Your task to perform on an android device: turn on airplane mode Image 0: 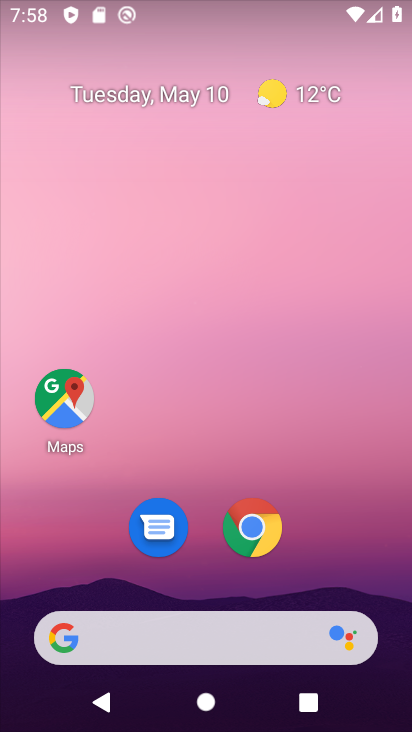
Step 0: drag from (316, 541) to (360, 101)
Your task to perform on an android device: turn on airplane mode Image 1: 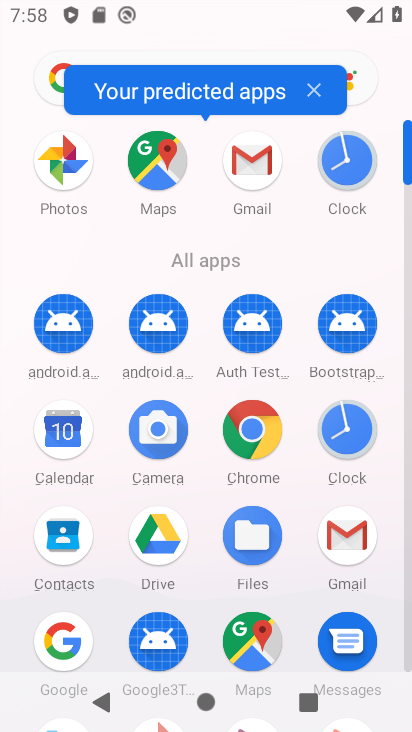
Step 1: drag from (188, 573) to (213, 231)
Your task to perform on an android device: turn on airplane mode Image 2: 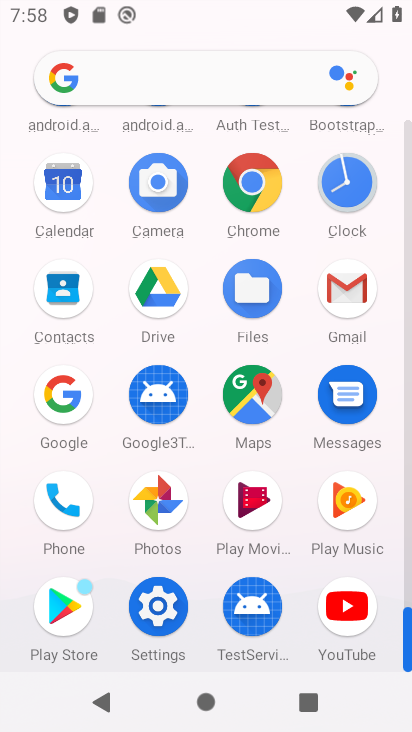
Step 2: click (141, 618)
Your task to perform on an android device: turn on airplane mode Image 3: 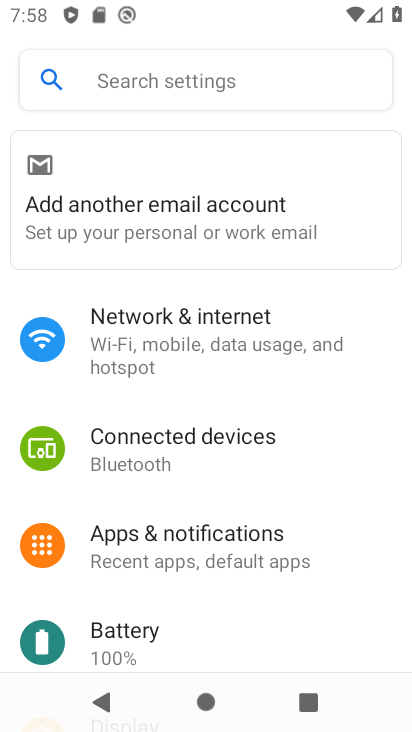
Step 3: drag from (276, 580) to (332, 228)
Your task to perform on an android device: turn on airplane mode Image 4: 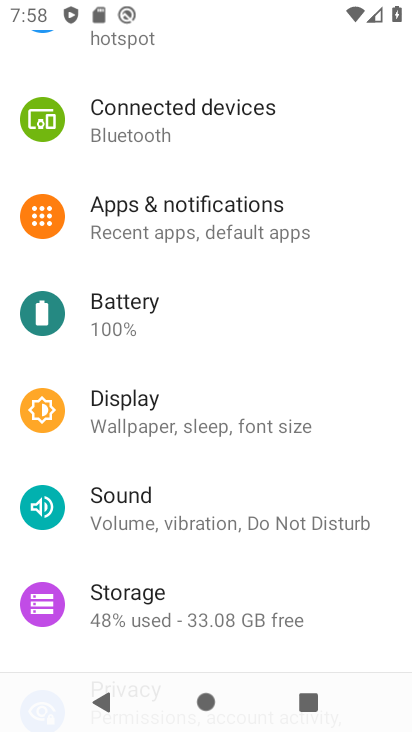
Step 4: drag from (279, 593) to (240, 690)
Your task to perform on an android device: turn on airplane mode Image 5: 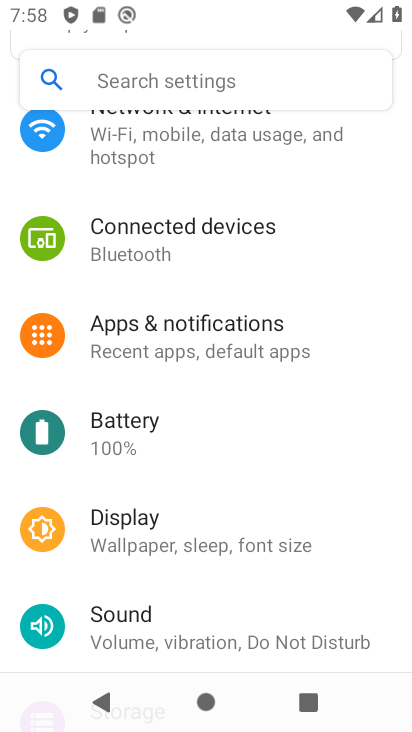
Step 5: click (146, 158)
Your task to perform on an android device: turn on airplane mode Image 6: 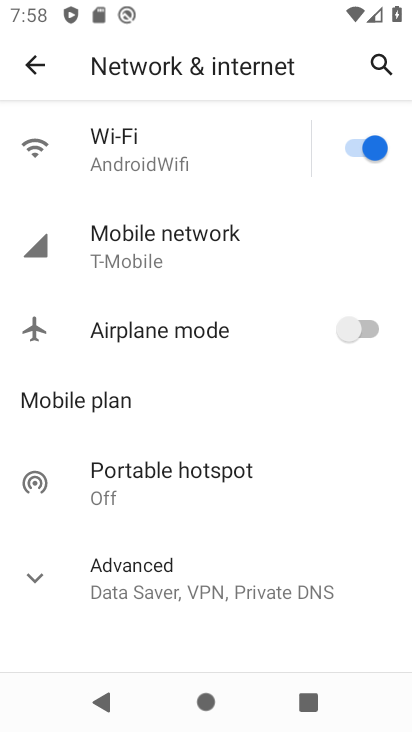
Step 6: click (351, 327)
Your task to perform on an android device: turn on airplane mode Image 7: 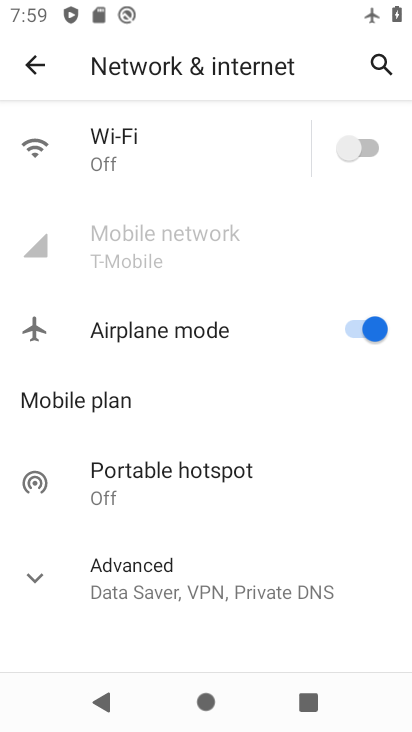
Step 7: task complete